Your task to perform on an android device: turn off location Image 0: 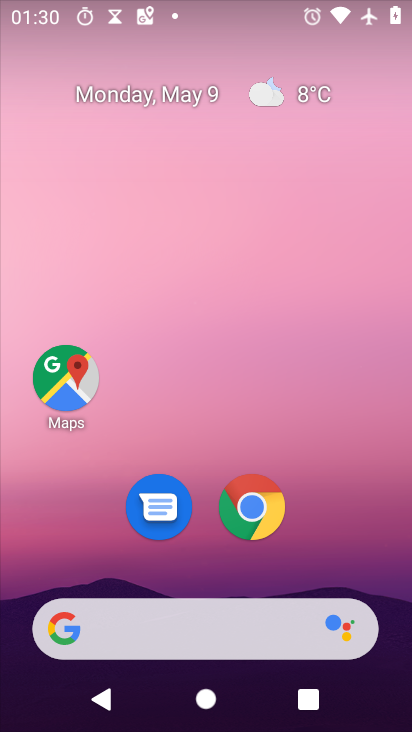
Step 0: drag from (231, 724) to (226, 134)
Your task to perform on an android device: turn off location Image 1: 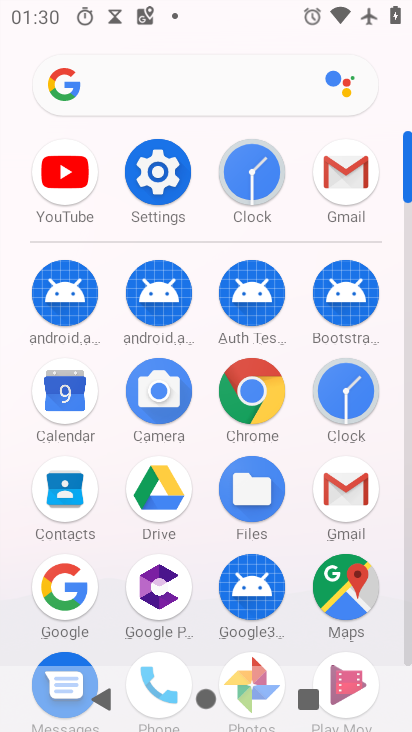
Step 1: click (161, 169)
Your task to perform on an android device: turn off location Image 2: 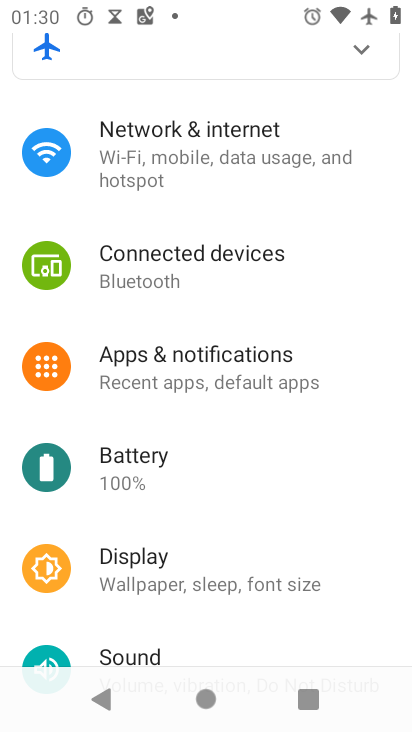
Step 2: drag from (216, 642) to (210, 247)
Your task to perform on an android device: turn off location Image 3: 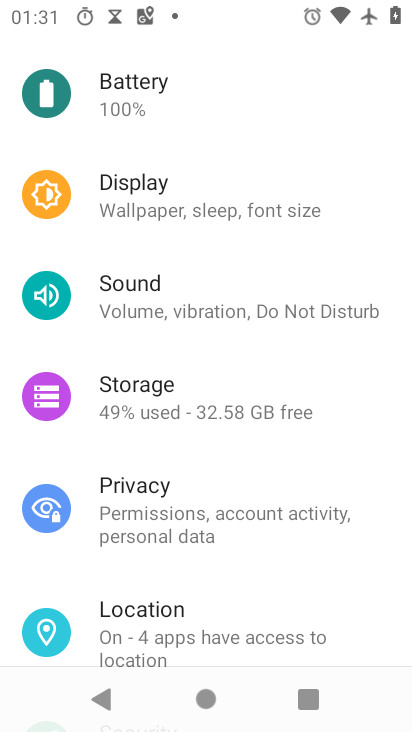
Step 3: click (163, 620)
Your task to perform on an android device: turn off location Image 4: 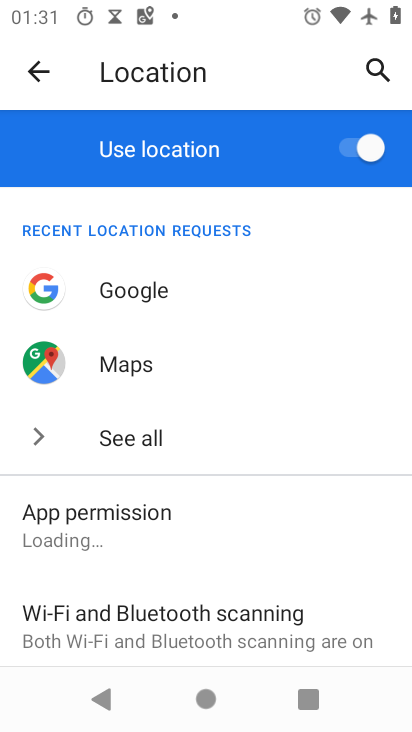
Step 4: click (348, 149)
Your task to perform on an android device: turn off location Image 5: 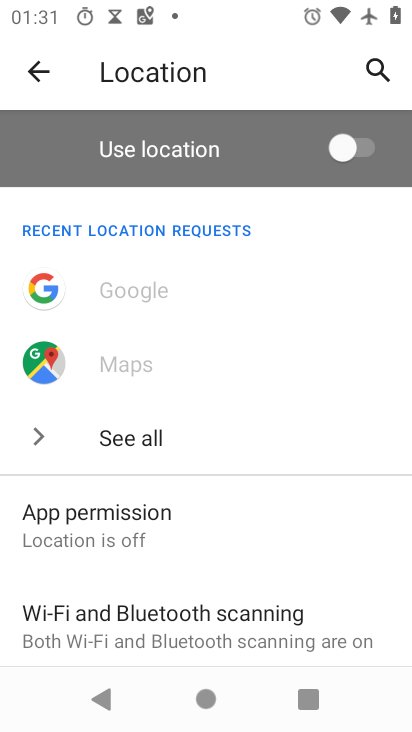
Step 5: task complete